Your task to perform on an android device: Open settings Image 0: 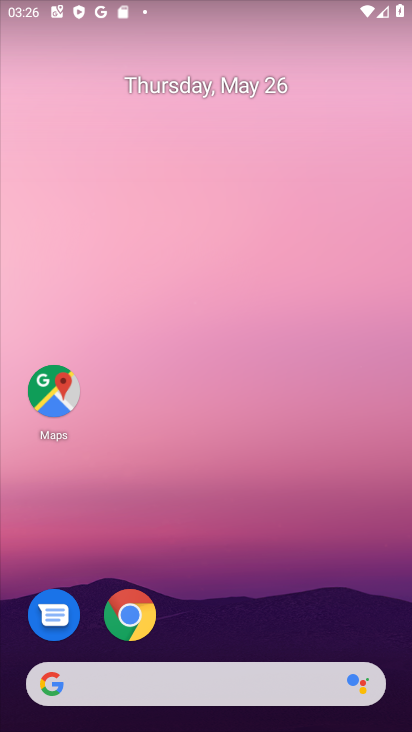
Step 0: drag from (200, 631) to (181, 107)
Your task to perform on an android device: Open settings Image 1: 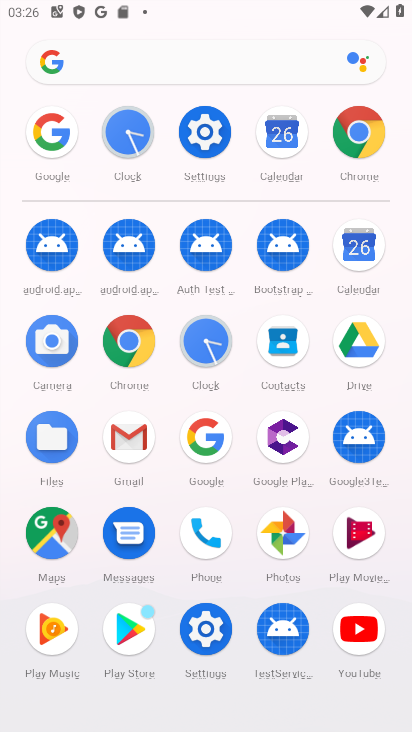
Step 1: click (199, 141)
Your task to perform on an android device: Open settings Image 2: 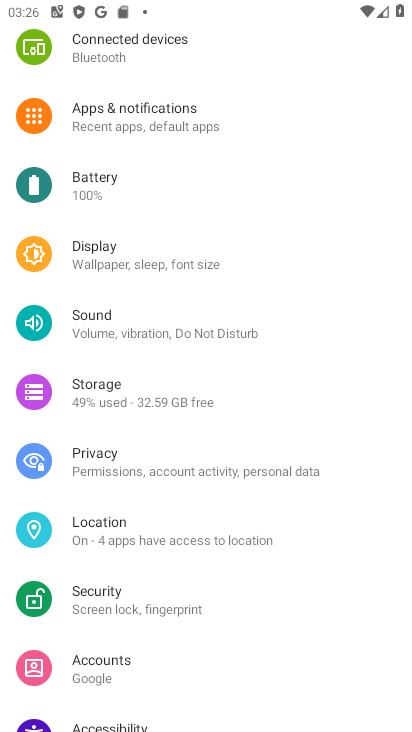
Step 2: task complete